Your task to perform on an android device: Go to battery settings Image 0: 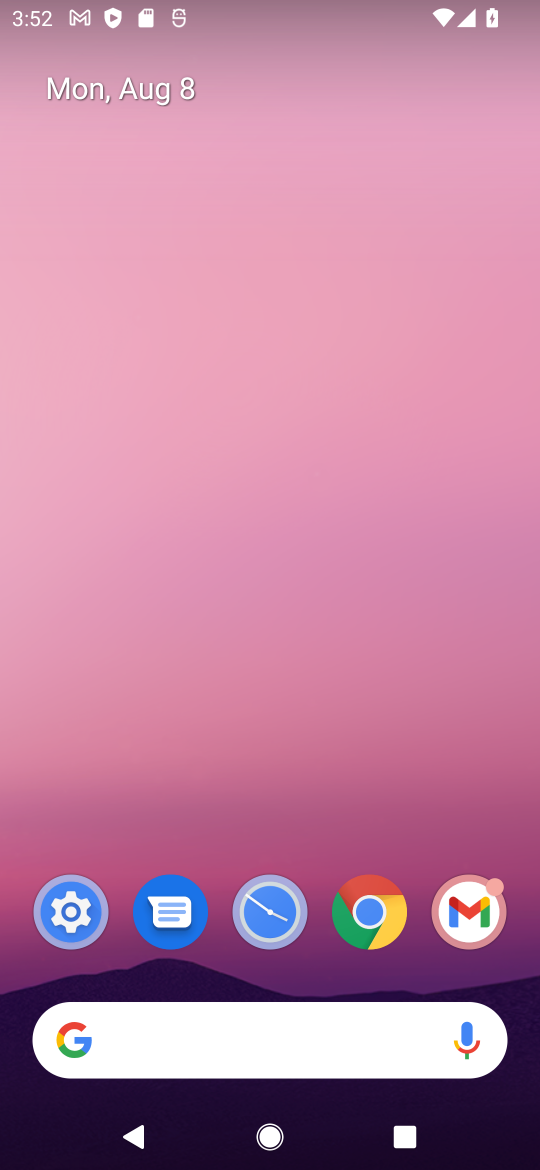
Step 0: drag from (213, 576) to (455, 124)
Your task to perform on an android device: Go to battery settings Image 1: 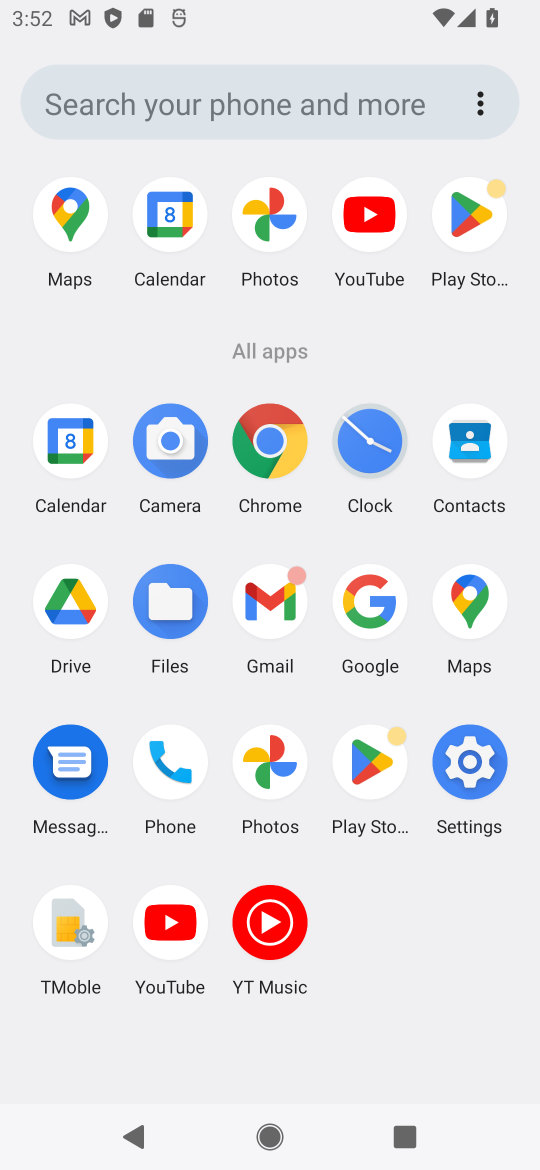
Step 1: click (459, 732)
Your task to perform on an android device: Go to battery settings Image 2: 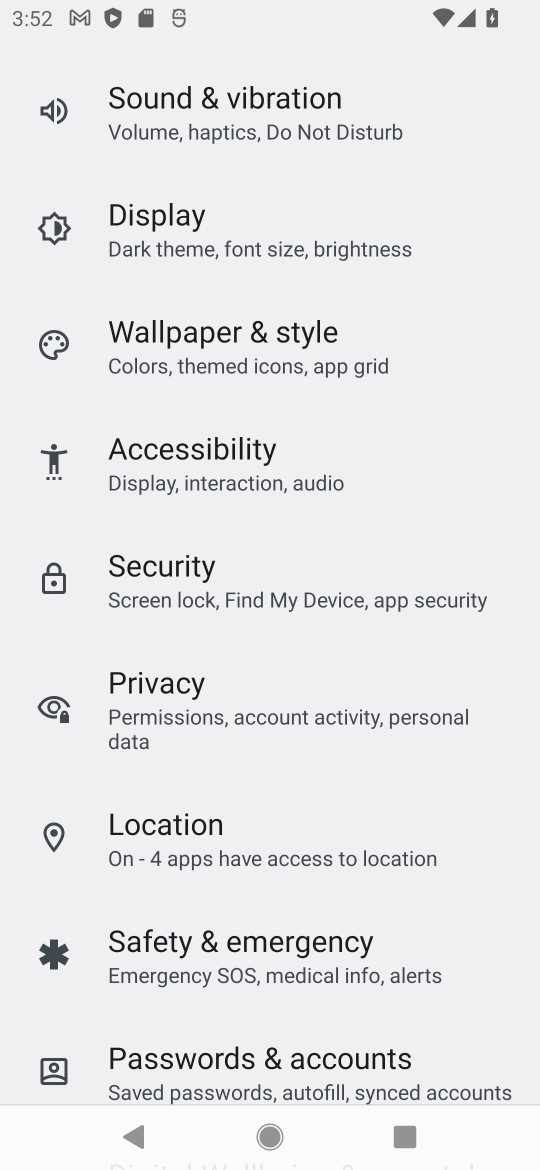
Step 2: drag from (12, 894) to (306, 270)
Your task to perform on an android device: Go to battery settings Image 3: 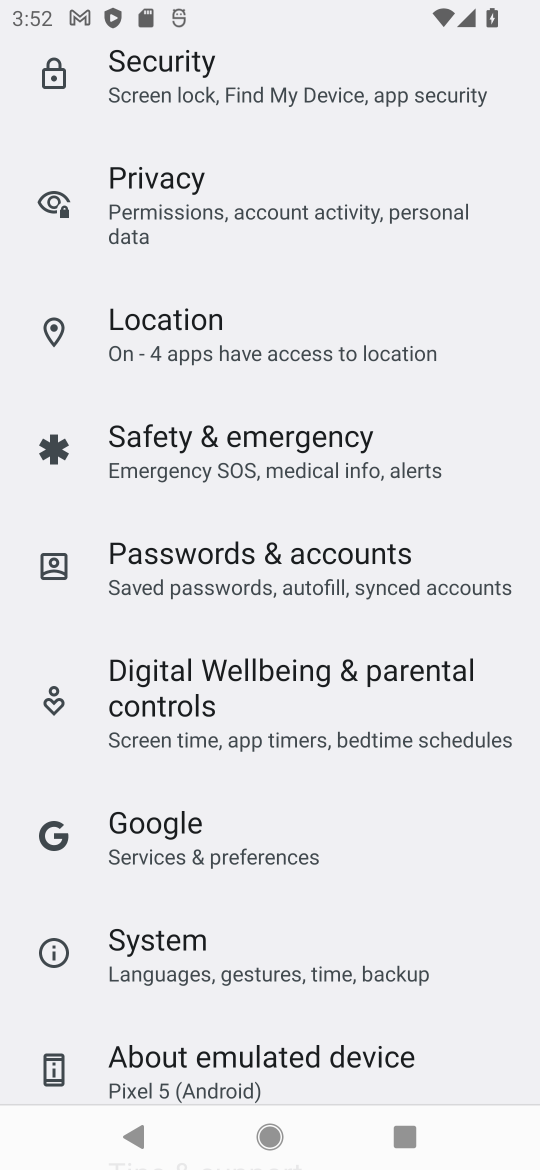
Step 3: drag from (270, 295) to (136, 959)
Your task to perform on an android device: Go to battery settings Image 4: 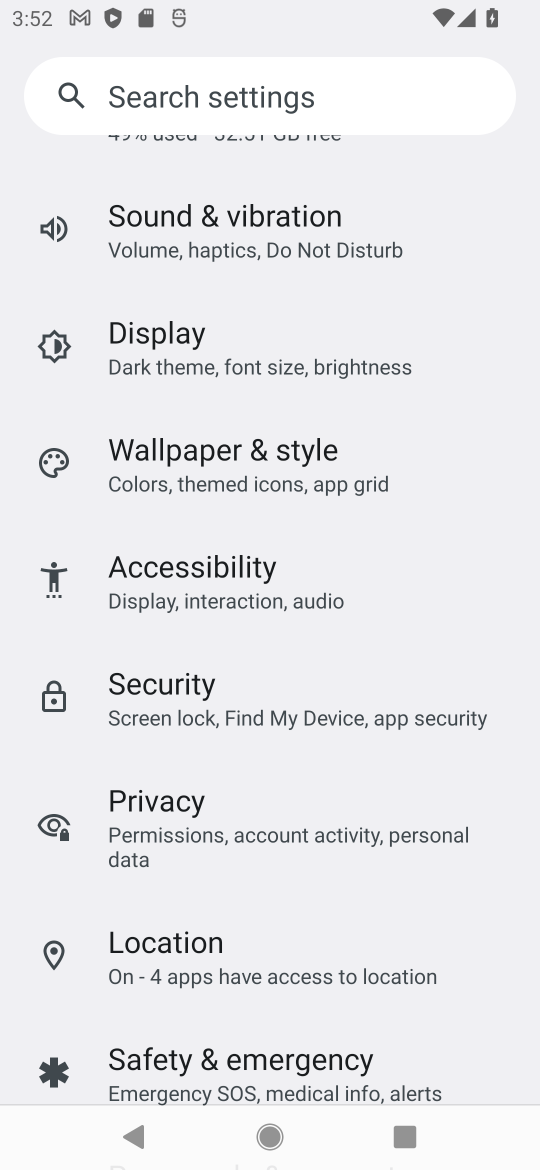
Step 4: drag from (145, 209) to (67, 987)
Your task to perform on an android device: Go to battery settings Image 5: 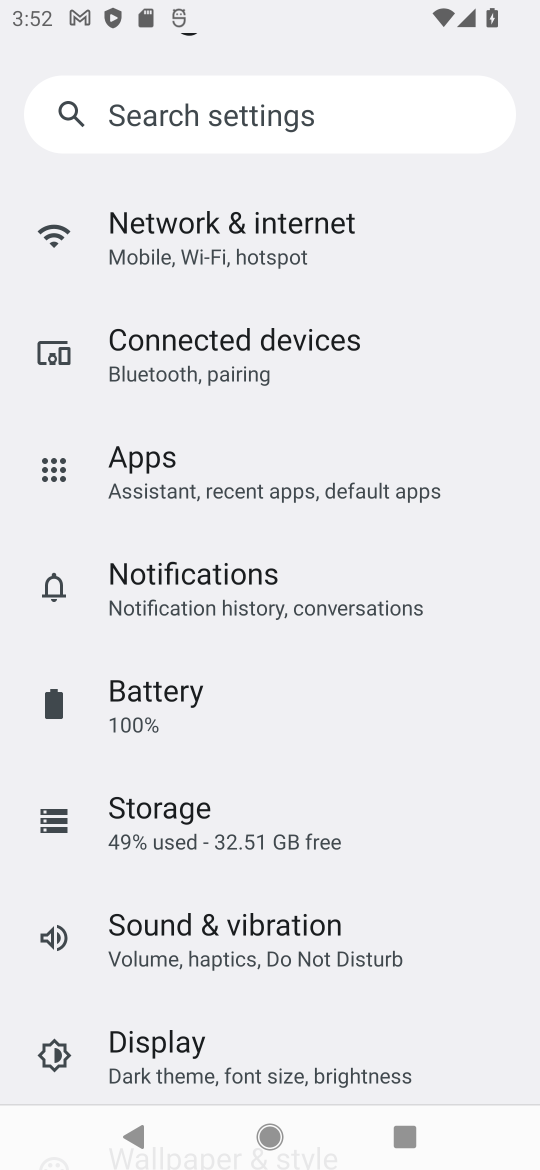
Step 5: click (165, 710)
Your task to perform on an android device: Go to battery settings Image 6: 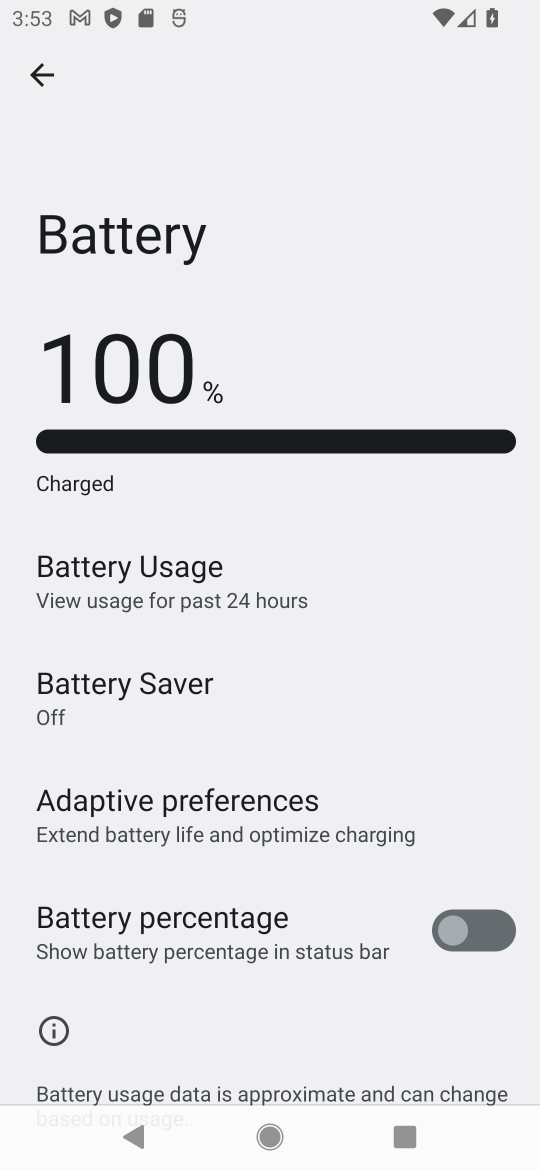
Step 6: task complete